Your task to perform on an android device: Open CNN.com Image 0: 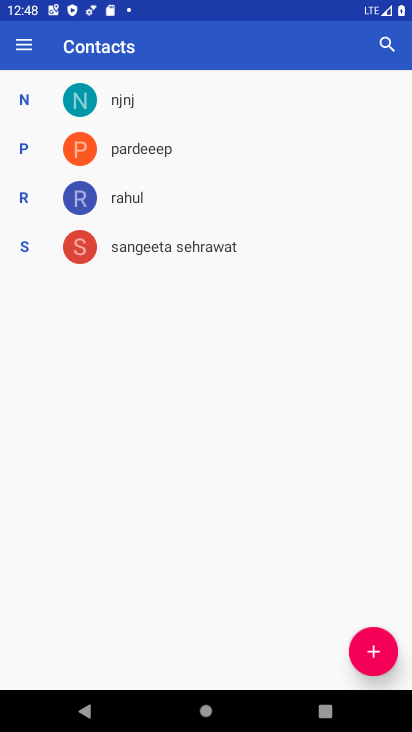
Step 0: press home button
Your task to perform on an android device: Open CNN.com Image 1: 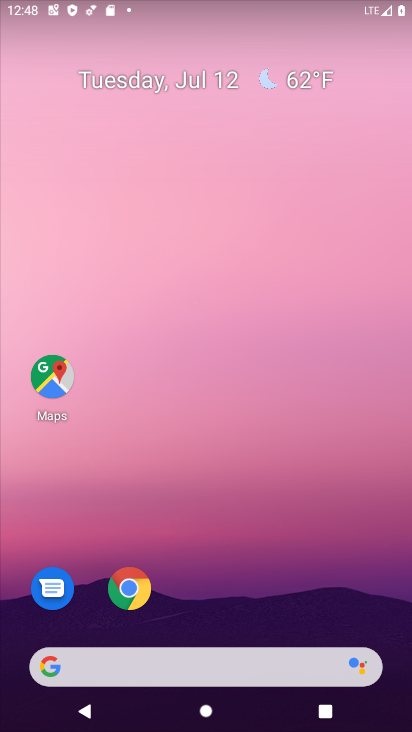
Step 1: click (117, 672)
Your task to perform on an android device: Open CNN.com Image 2: 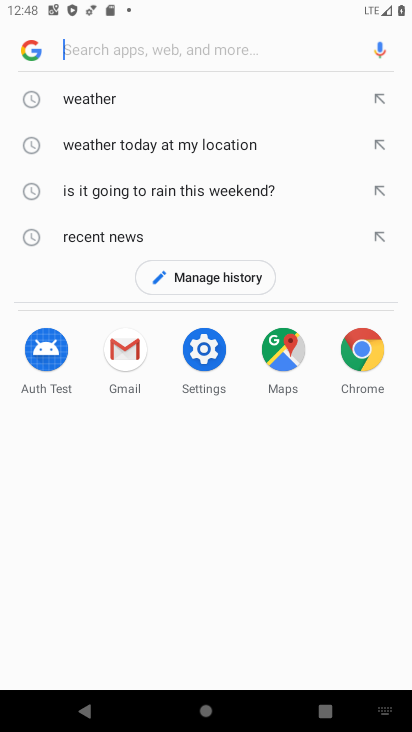
Step 2: type "cnn.com"
Your task to perform on an android device: Open CNN.com Image 3: 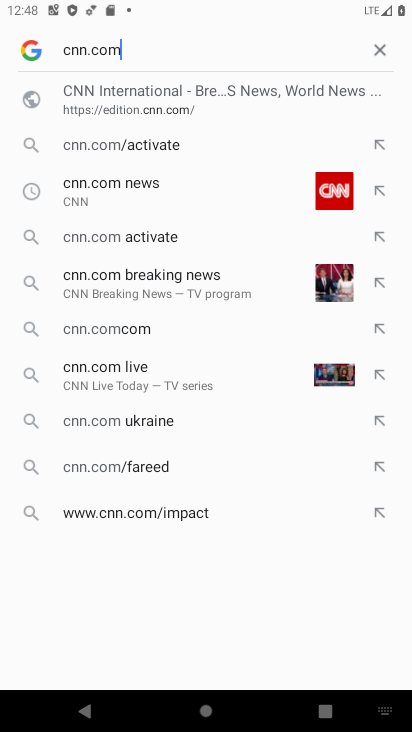
Step 3: click (226, 104)
Your task to perform on an android device: Open CNN.com Image 4: 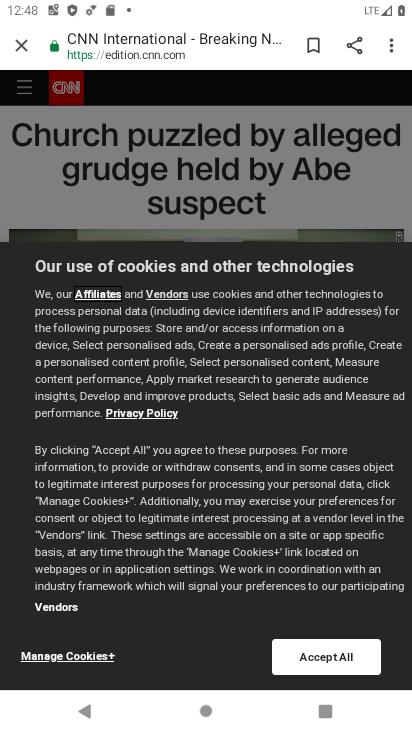
Step 4: task complete